Your task to perform on an android device: Go to accessibility settings Image 0: 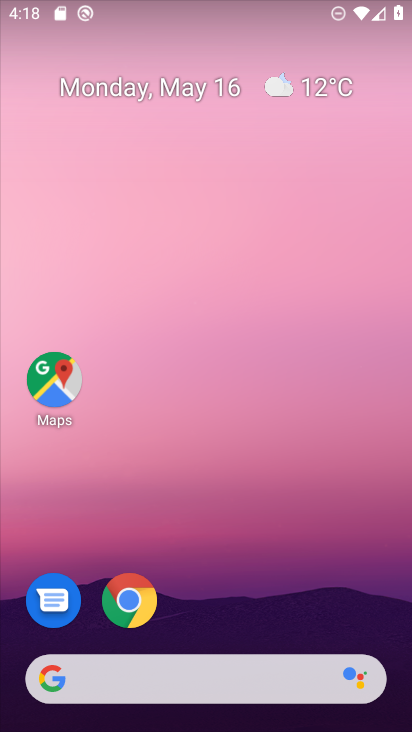
Step 0: drag from (266, 554) to (312, 12)
Your task to perform on an android device: Go to accessibility settings Image 1: 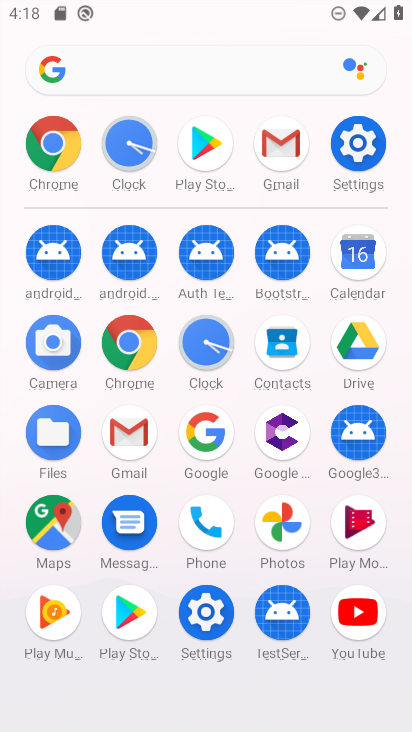
Step 1: click (350, 135)
Your task to perform on an android device: Go to accessibility settings Image 2: 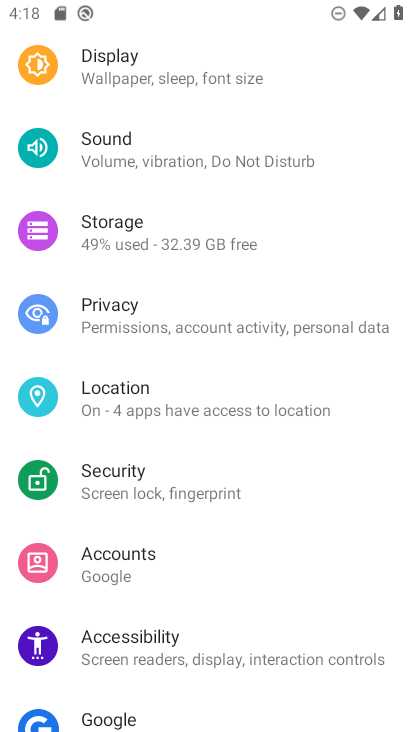
Step 2: drag from (226, 582) to (307, 46)
Your task to perform on an android device: Go to accessibility settings Image 3: 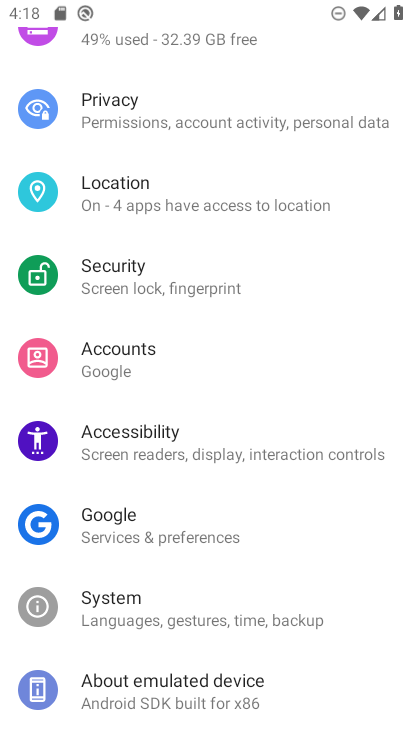
Step 3: drag from (183, 562) to (241, 161)
Your task to perform on an android device: Go to accessibility settings Image 4: 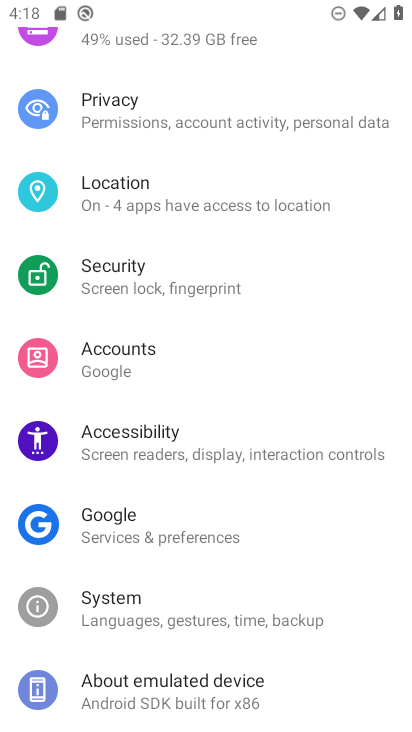
Step 4: click (143, 435)
Your task to perform on an android device: Go to accessibility settings Image 5: 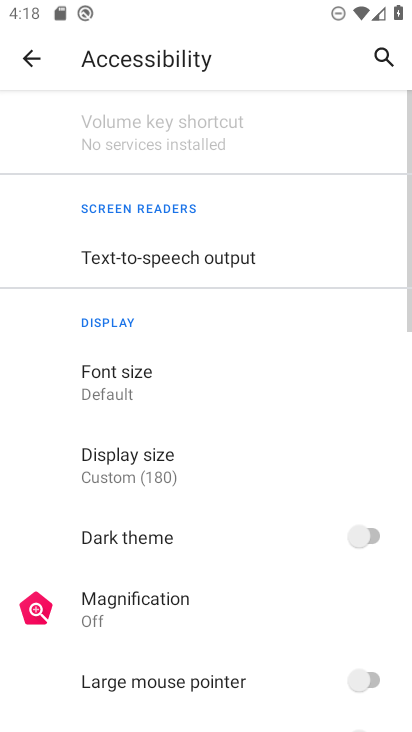
Step 5: task complete